Your task to perform on an android device: Search for sushi restaurants on Maps Image 0: 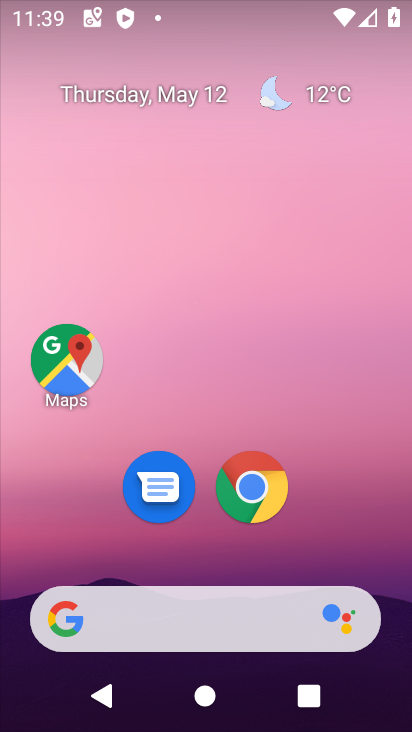
Step 0: click (69, 362)
Your task to perform on an android device: Search for sushi restaurants on Maps Image 1: 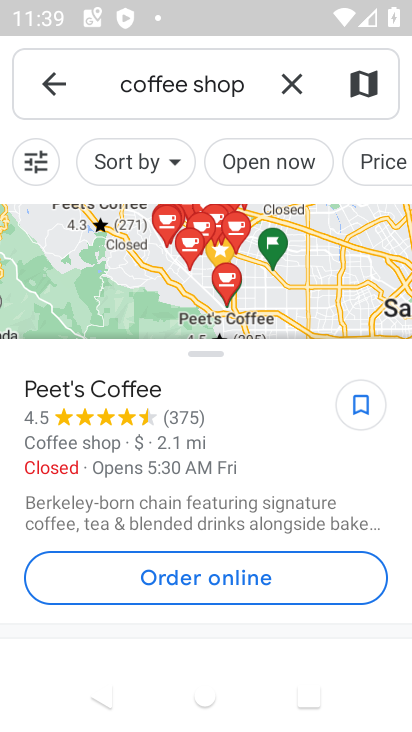
Step 1: click (293, 84)
Your task to perform on an android device: Search for sushi restaurants on Maps Image 2: 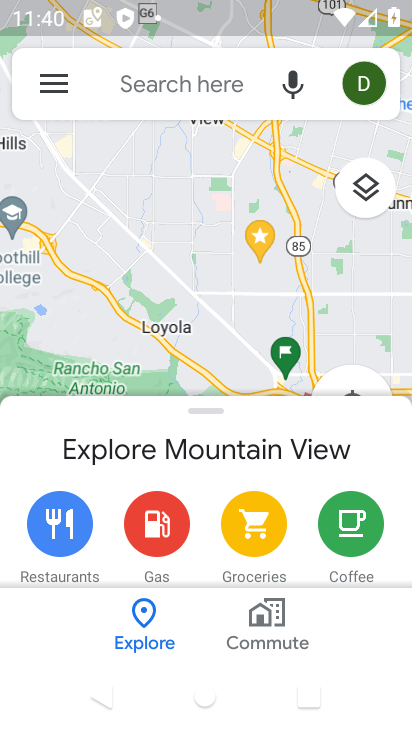
Step 2: click (132, 81)
Your task to perform on an android device: Search for sushi restaurants on Maps Image 3: 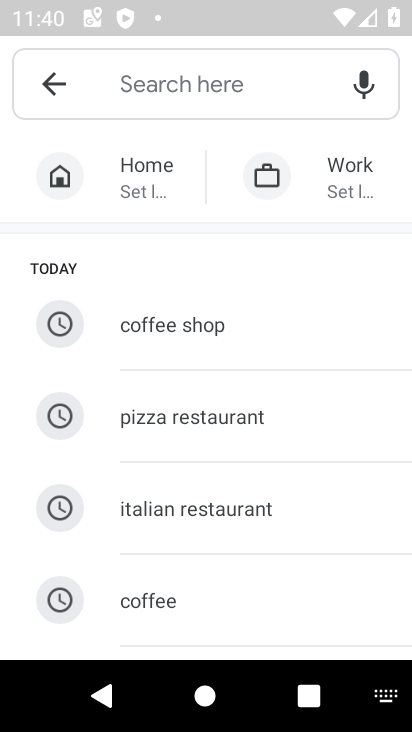
Step 3: type "sushi restaurant"
Your task to perform on an android device: Search for sushi restaurants on Maps Image 4: 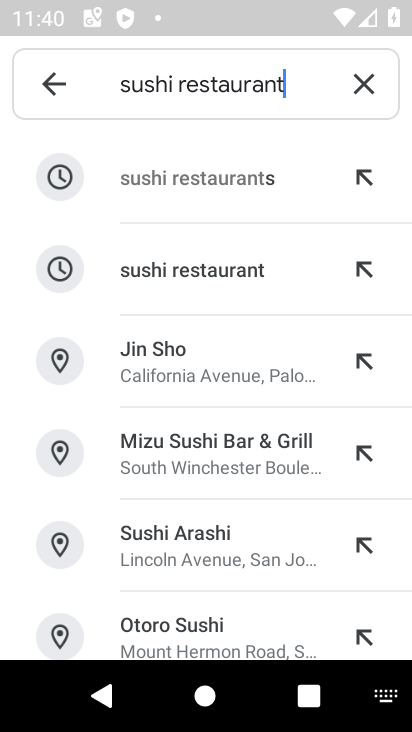
Step 4: click (233, 185)
Your task to perform on an android device: Search for sushi restaurants on Maps Image 5: 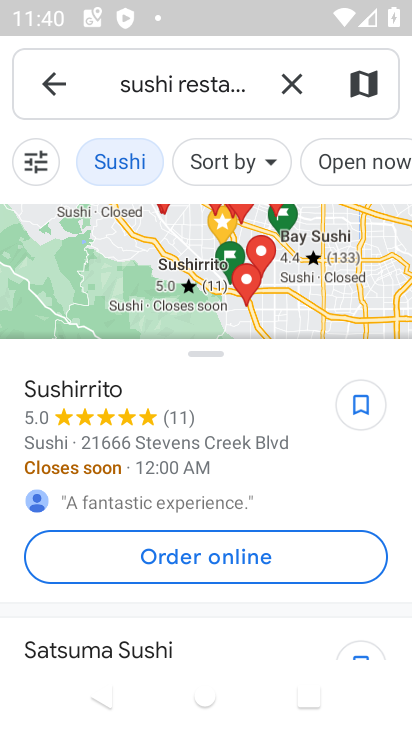
Step 5: task complete